Your task to perform on an android device: turn off airplane mode Image 0: 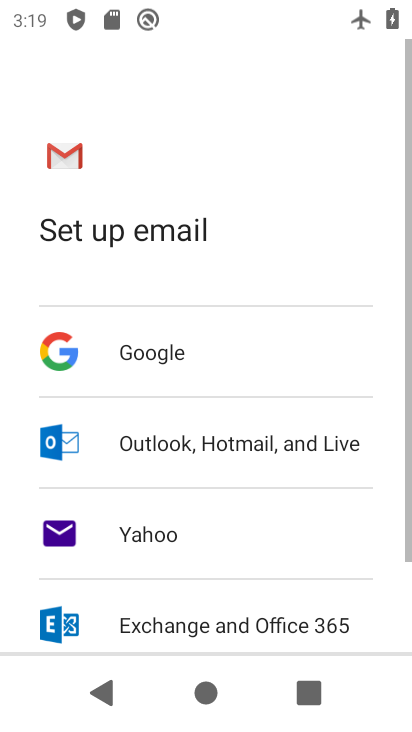
Step 0: press home button
Your task to perform on an android device: turn off airplane mode Image 1: 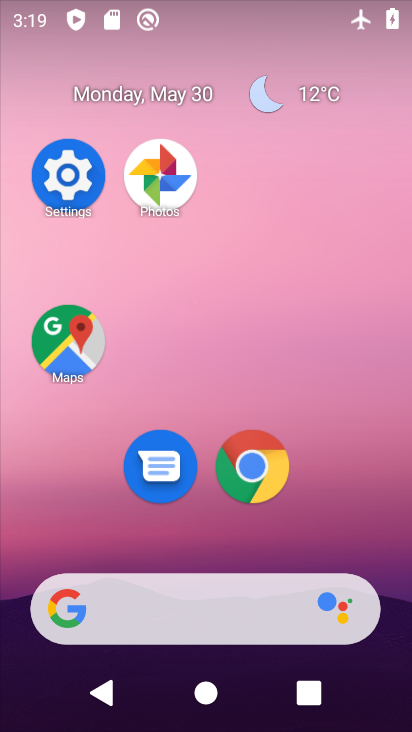
Step 1: click (92, 202)
Your task to perform on an android device: turn off airplane mode Image 2: 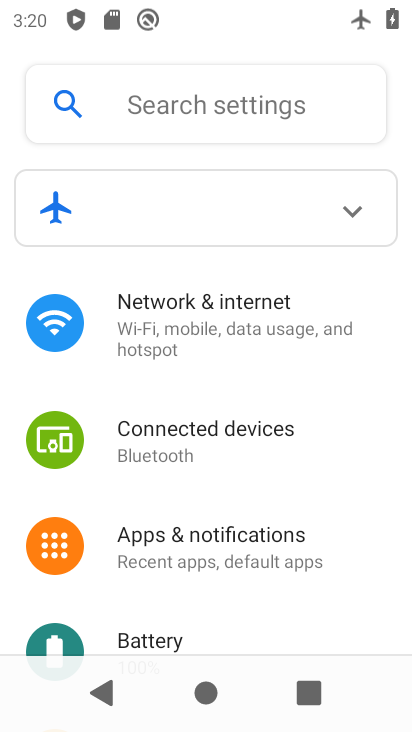
Step 2: click (210, 299)
Your task to perform on an android device: turn off airplane mode Image 3: 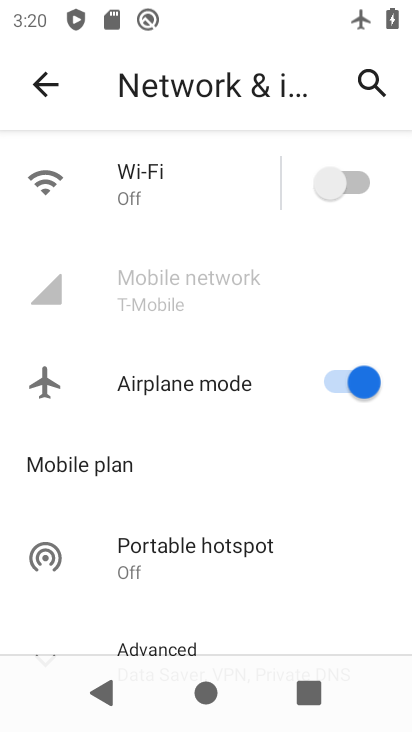
Step 3: click (360, 381)
Your task to perform on an android device: turn off airplane mode Image 4: 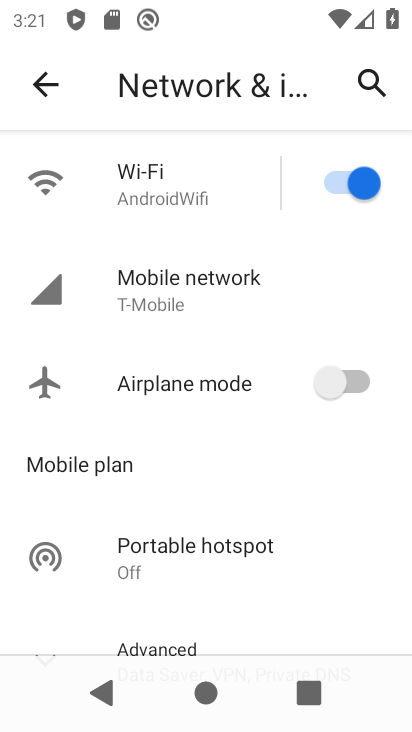
Step 4: task complete